Your task to perform on an android device: check storage Image 0: 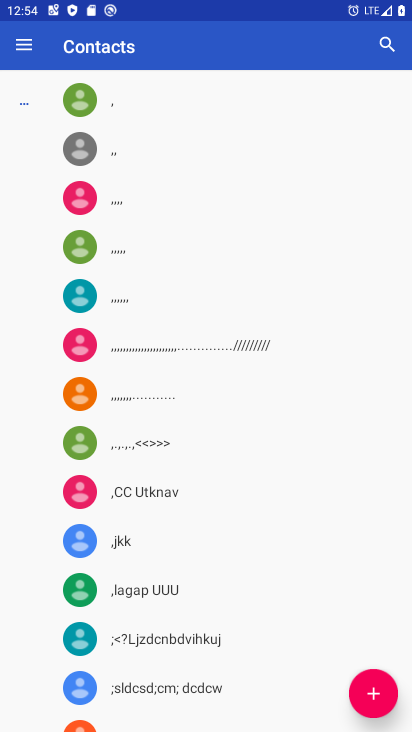
Step 0: drag from (322, 621) to (284, 182)
Your task to perform on an android device: check storage Image 1: 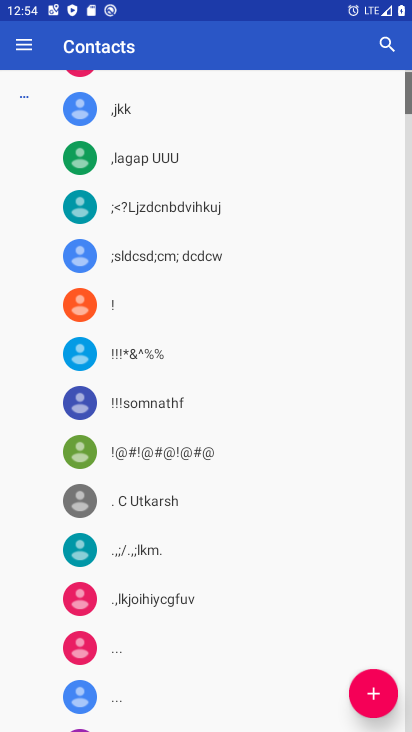
Step 1: press home button
Your task to perform on an android device: check storage Image 2: 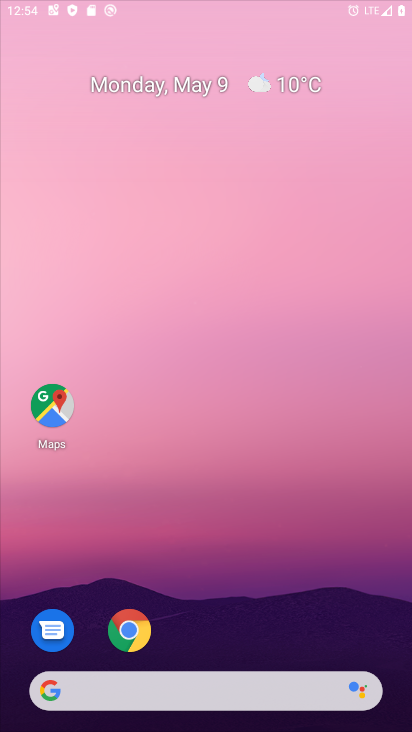
Step 2: drag from (335, 540) to (238, 89)
Your task to perform on an android device: check storage Image 3: 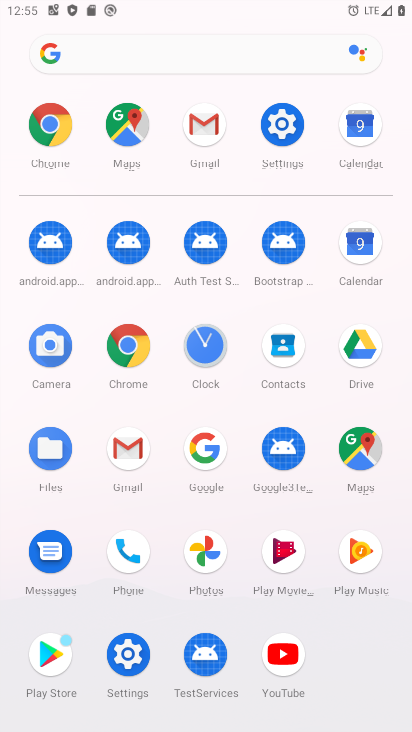
Step 3: click (136, 661)
Your task to perform on an android device: check storage Image 4: 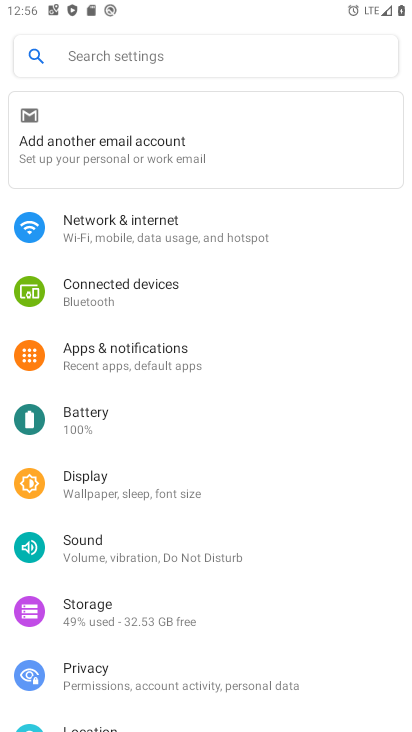
Step 4: click (102, 620)
Your task to perform on an android device: check storage Image 5: 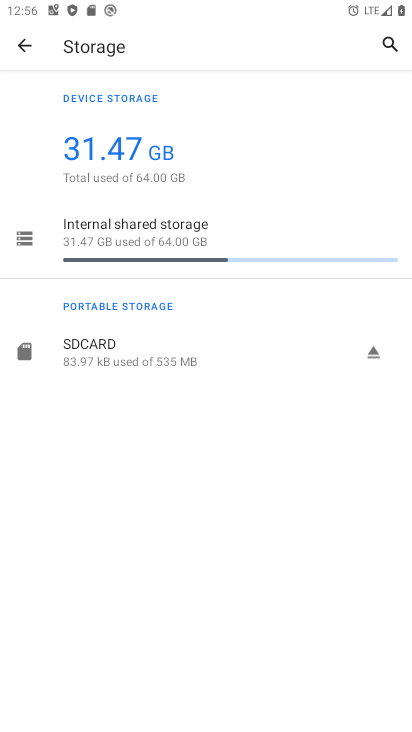
Step 5: click (186, 226)
Your task to perform on an android device: check storage Image 6: 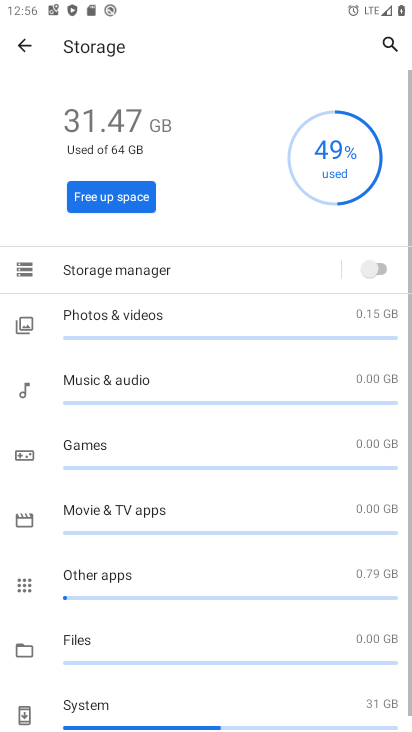
Step 6: task complete